Your task to perform on an android device: Go to Maps Image 0: 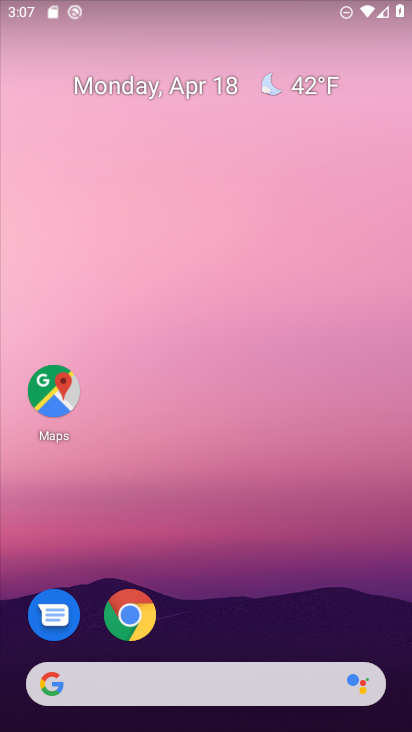
Step 0: drag from (268, 630) to (280, 105)
Your task to perform on an android device: Go to Maps Image 1: 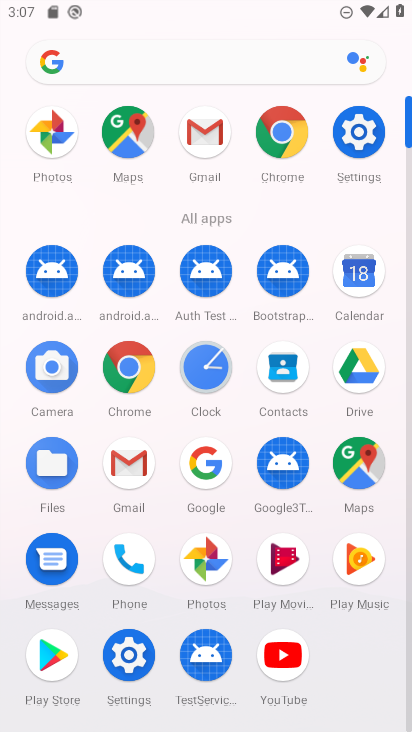
Step 1: click (129, 131)
Your task to perform on an android device: Go to Maps Image 2: 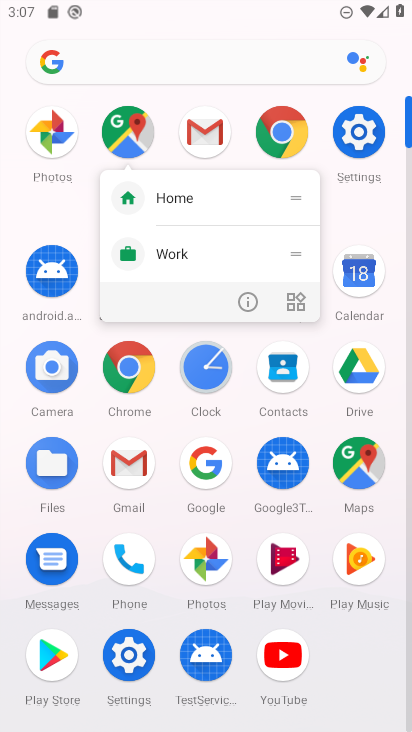
Step 2: click (129, 133)
Your task to perform on an android device: Go to Maps Image 3: 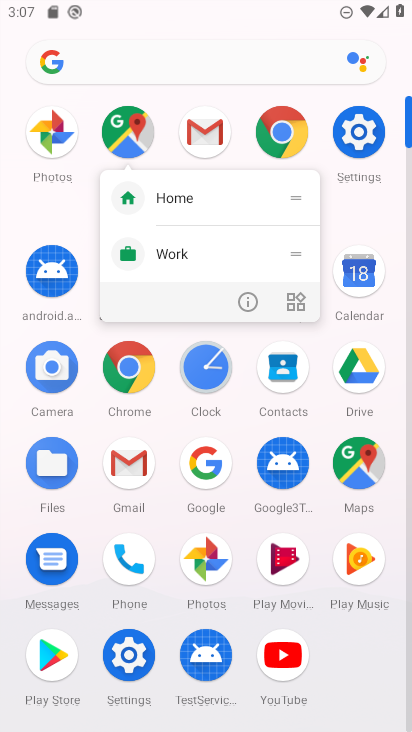
Step 3: click (129, 130)
Your task to perform on an android device: Go to Maps Image 4: 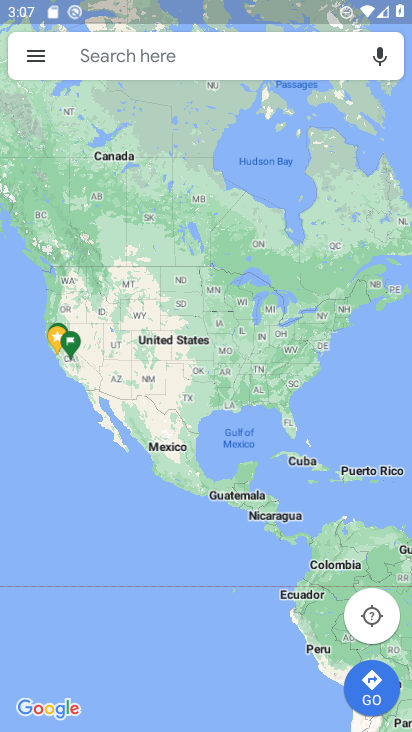
Step 4: task complete